Your task to perform on an android device: Go to battery settings Image 0: 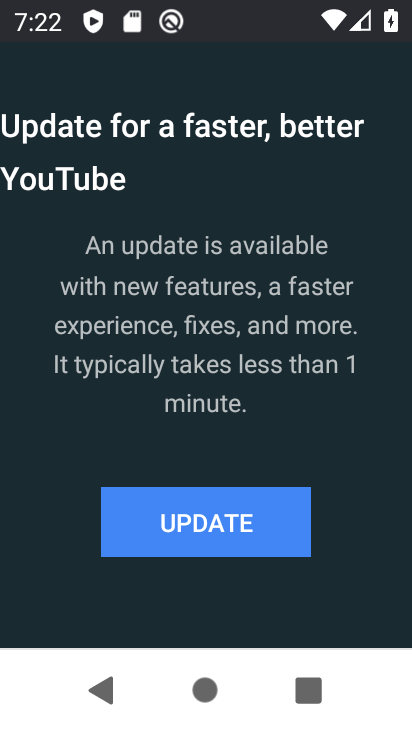
Step 0: press home button
Your task to perform on an android device: Go to battery settings Image 1: 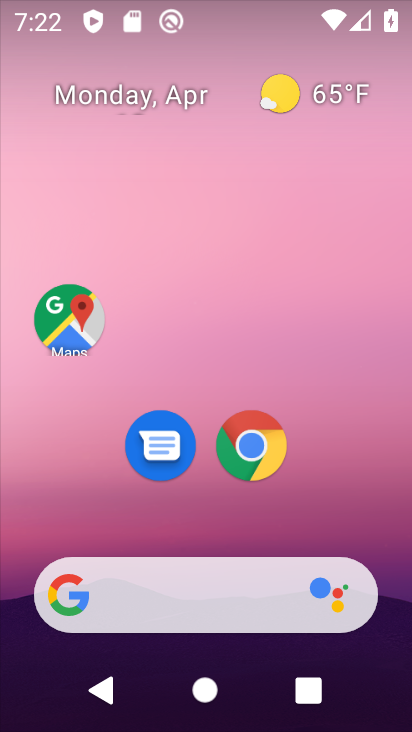
Step 1: drag from (367, 380) to (355, 132)
Your task to perform on an android device: Go to battery settings Image 2: 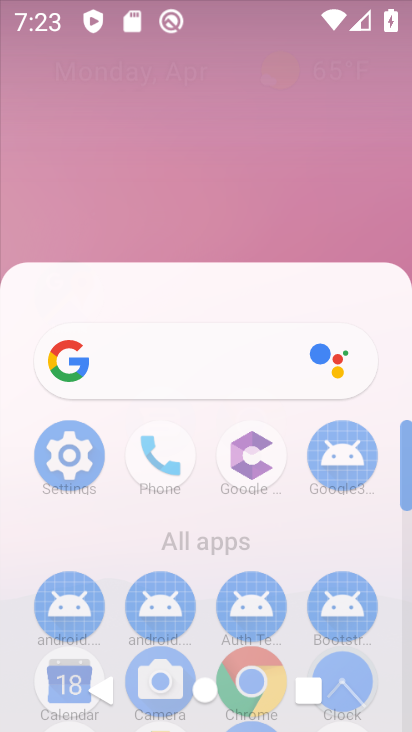
Step 2: drag from (388, 592) to (313, 133)
Your task to perform on an android device: Go to battery settings Image 3: 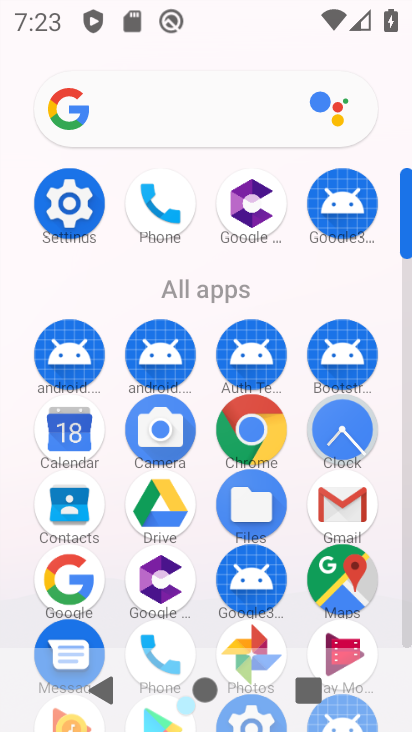
Step 3: click (66, 204)
Your task to perform on an android device: Go to battery settings Image 4: 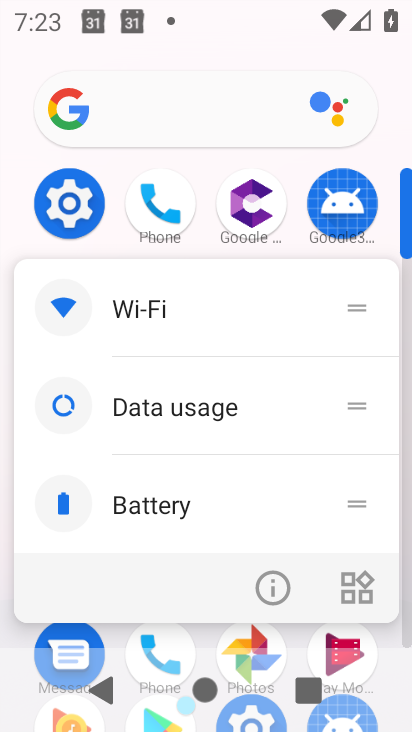
Step 4: press back button
Your task to perform on an android device: Go to battery settings Image 5: 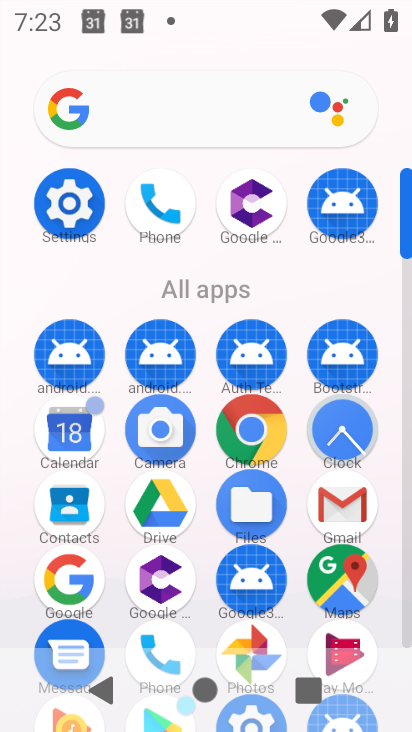
Step 5: click (78, 216)
Your task to perform on an android device: Go to battery settings Image 6: 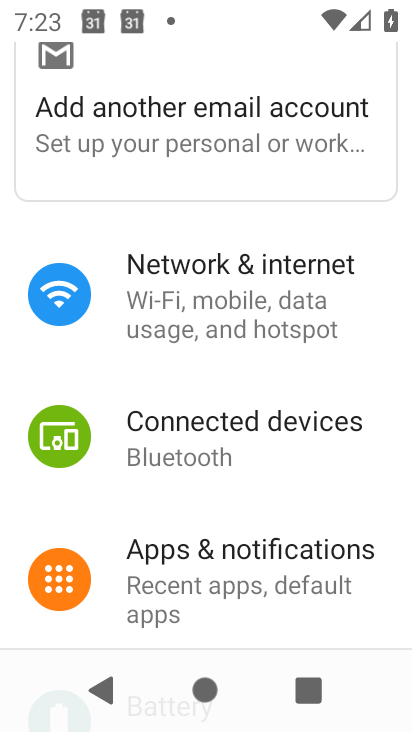
Step 6: drag from (303, 615) to (313, 247)
Your task to perform on an android device: Go to battery settings Image 7: 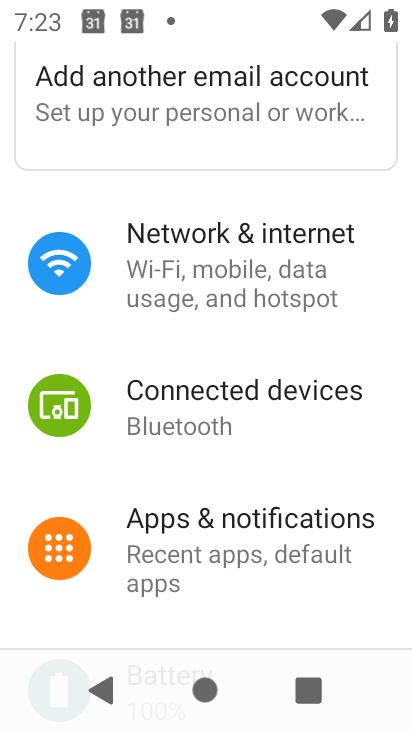
Step 7: drag from (307, 330) to (309, 147)
Your task to perform on an android device: Go to battery settings Image 8: 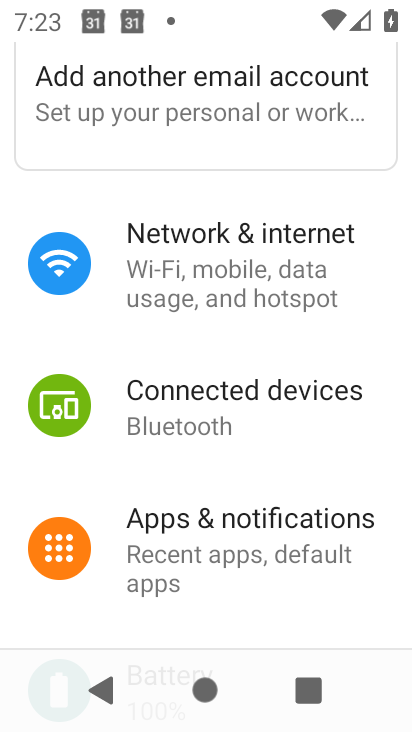
Step 8: drag from (303, 625) to (303, 245)
Your task to perform on an android device: Go to battery settings Image 9: 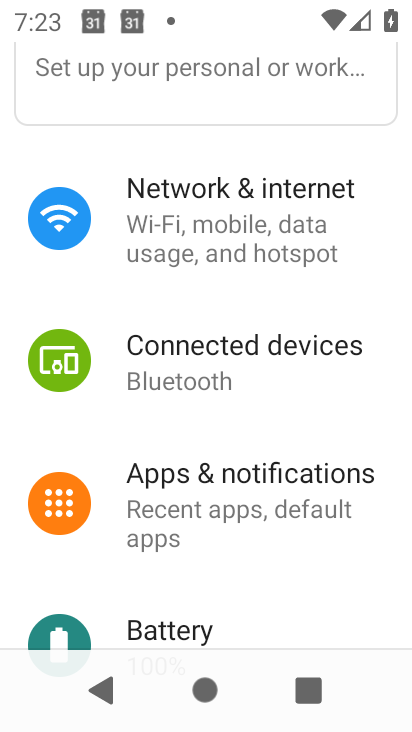
Step 9: click (155, 625)
Your task to perform on an android device: Go to battery settings Image 10: 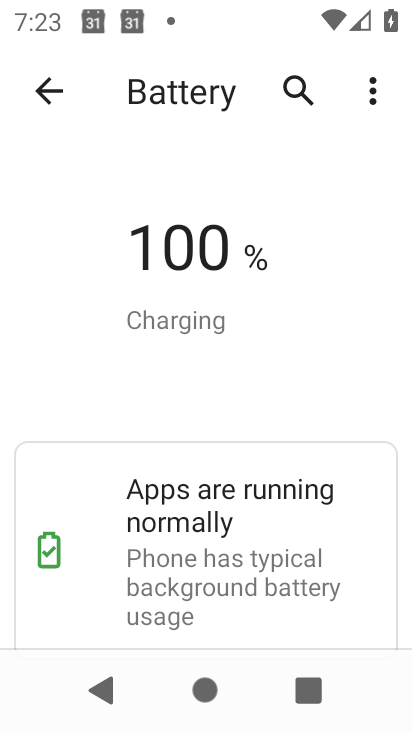
Step 10: click (377, 88)
Your task to perform on an android device: Go to battery settings Image 11: 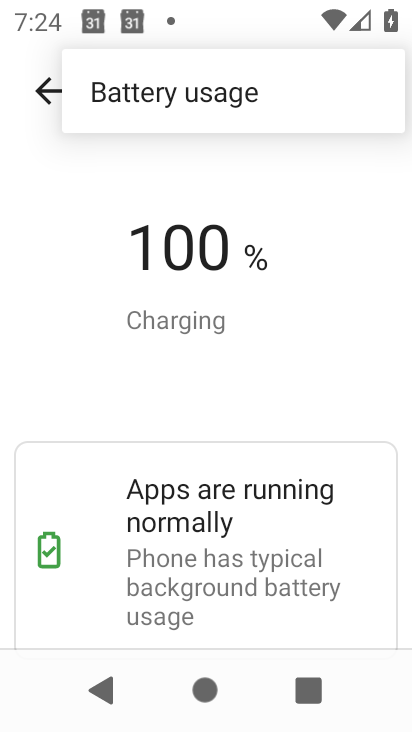
Step 11: task complete